Your task to perform on an android device: Do I have any events tomorrow? Image 0: 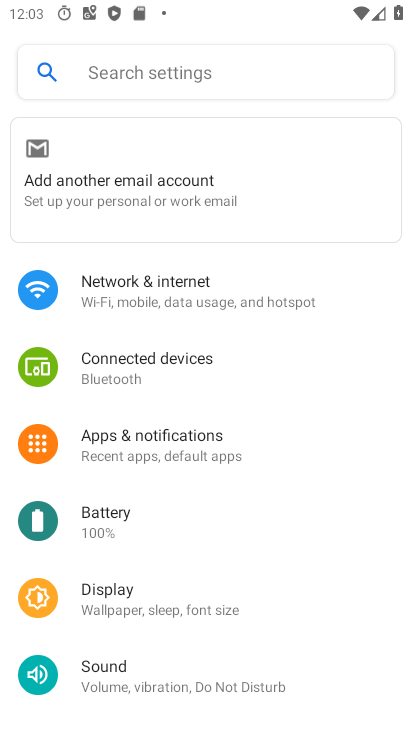
Step 0: press back button
Your task to perform on an android device: Do I have any events tomorrow? Image 1: 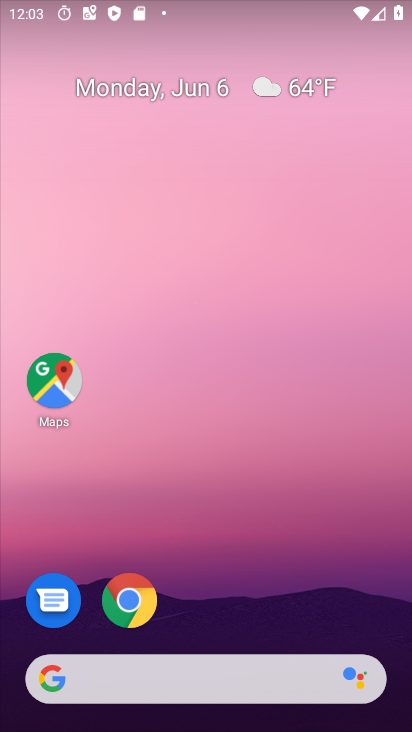
Step 1: drag from (257, 678) to (157, 333)
Your task to perform on an android device: Do I have any events tomorrow? Image 2: 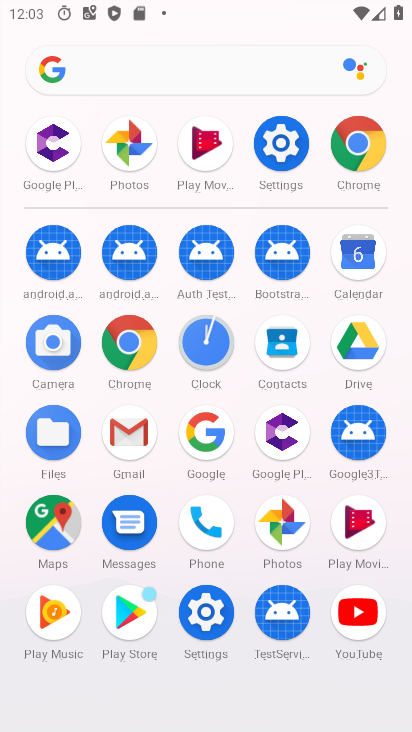
Step 2: click (383, 262)
Your task to perform on an android device: Do I have any events tomorrow? Image 3: 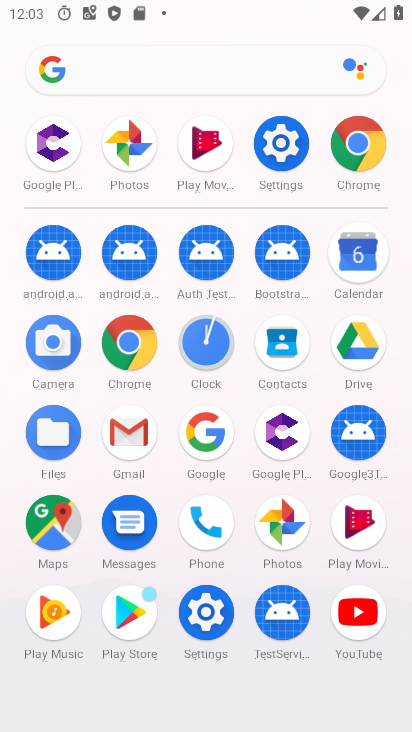
Step 3: click (363, 253)
Your task to perform on an android device: Do I have any events tomorrow? Image 4: 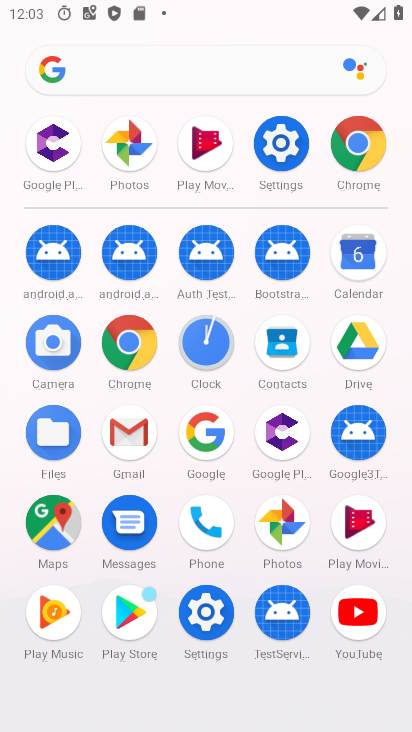
Step 4: click (362, 255)
Your task to perform on an android device: Do I have any events tomorrow? Image 5: 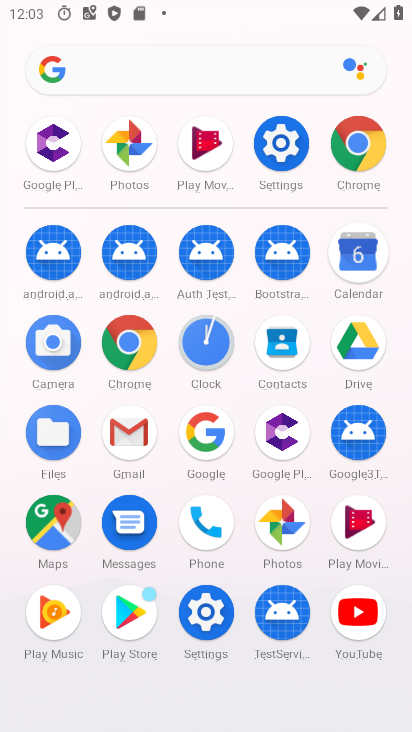
Step 5: click (362, 255)
Your task to perform on an android device: Do I have any events tomorrow? Image 6: 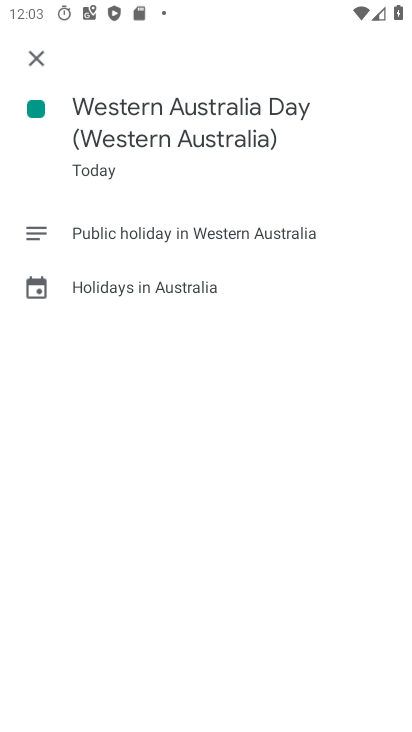
Step 6: task complete